Your task to perform on an android device: See recent photos Image 0: 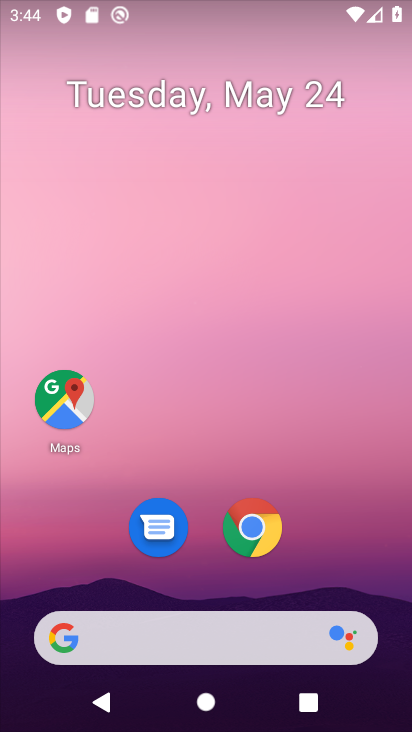
Step 0: drag from (199, 645) to (276, 116)
Your task to perform on an android device: See recent photos Image 1: 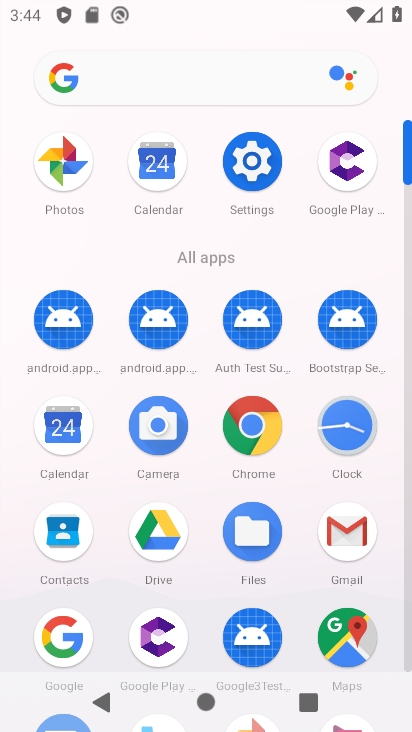
Step 1: drag from (197, 566) to (237, 428)
Your task to perform on an android device: See recent photos Image 2: 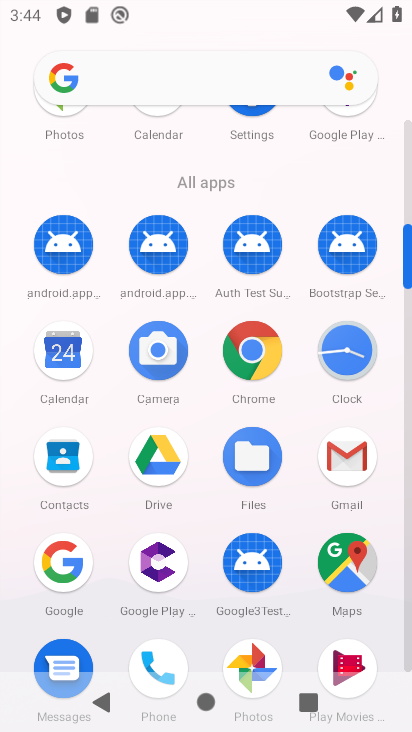
Step 2: click (248, 652)
Your task to perform on an android device: See recent photos Image 3: 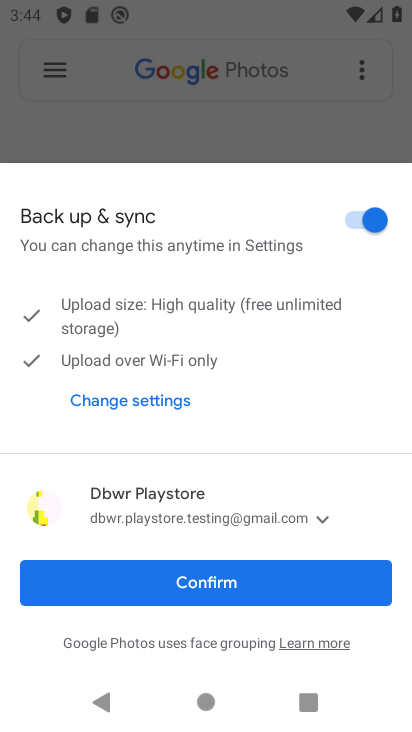
Step 3: click (212, 581)
Your task to perform on an android device: See recent photos Image 4: 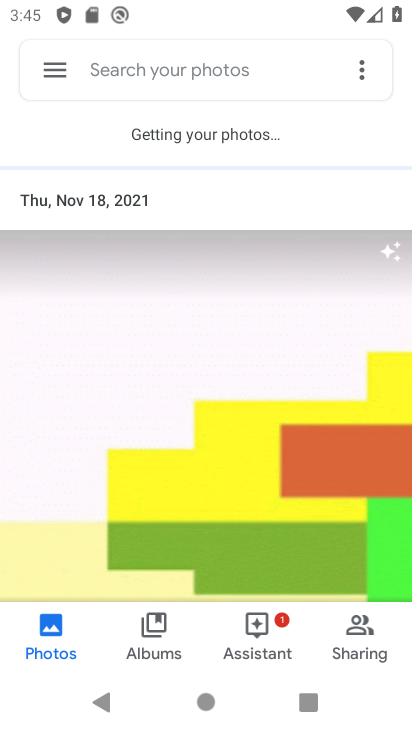
Step 4: task complete